Your task to perform on an android device: Open sound settings Image 0: 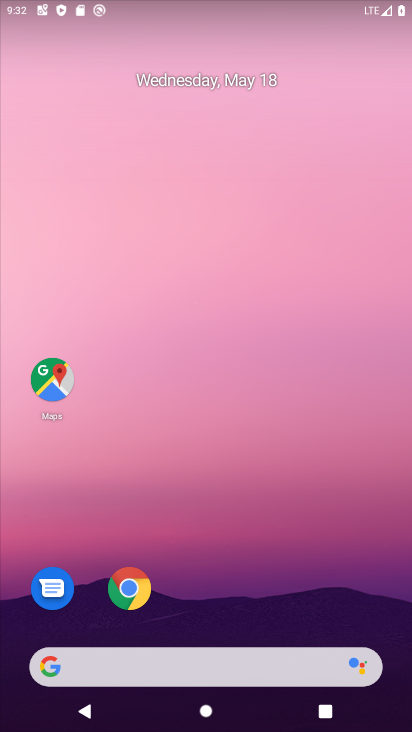
Step 0: drag from (322, 635) to (331, 27)
Your task to perform on an android device: Open sound settings Image 1: 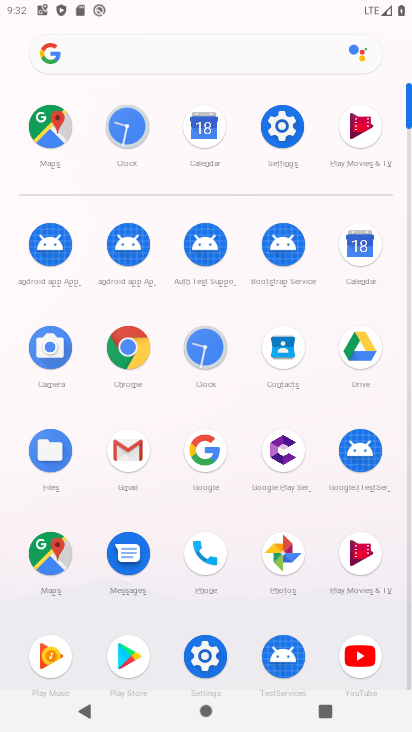
Step 1: click (284, 124)
Your task to perform on an android device: Open sound settings Image 2: 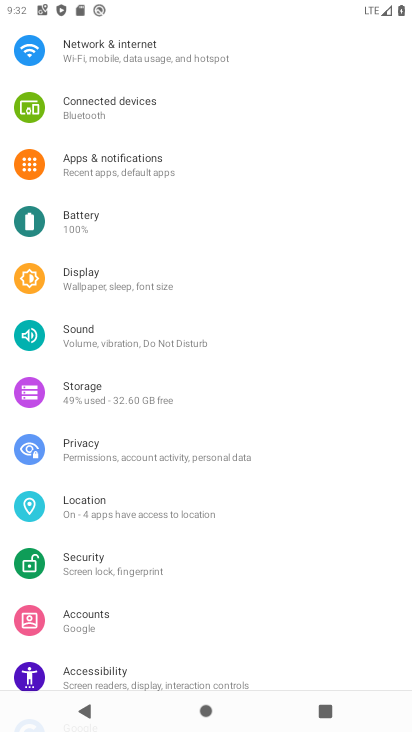
Step 2: click (78, 343)
Your task to perform on an android device: Open sound settings Image 3: 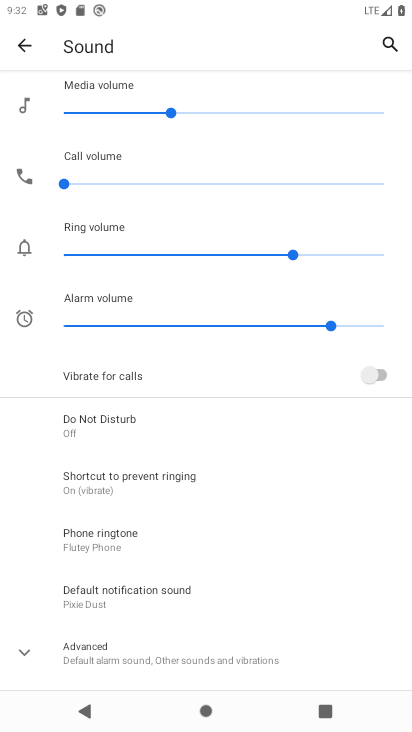
Step 3: task complete